Your task to perform on an android device: turn notification dots on Image 0: 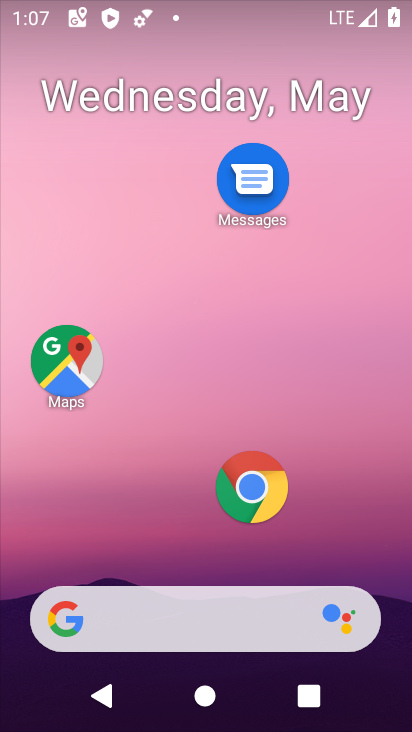
Step 0: press home button
Your task to perform on an android device: turn notification dots on Image 1: 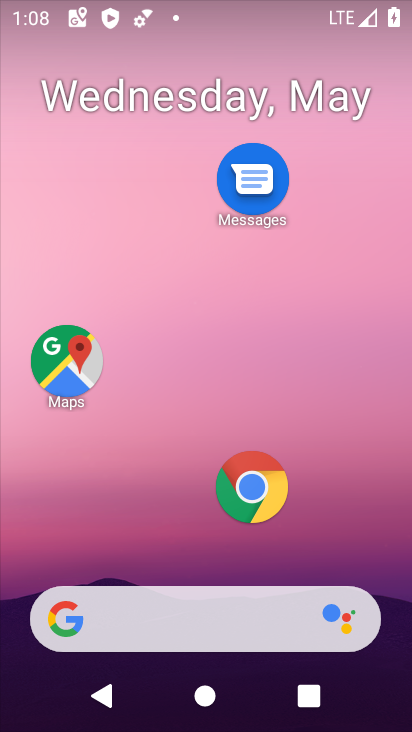
Step 1: drag from (156, 551) to (248, 12)
Your task to perform on an android device: turn notification dots on Image 2: 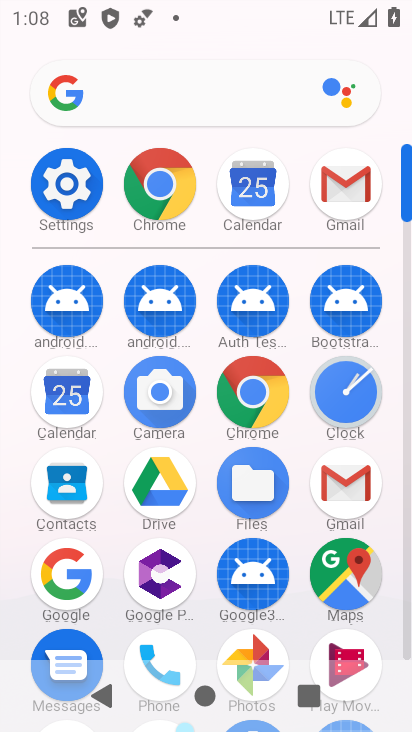
Step 2: click (85, 202)
Your task to perform on an android device: turn notification dots on Image 3: 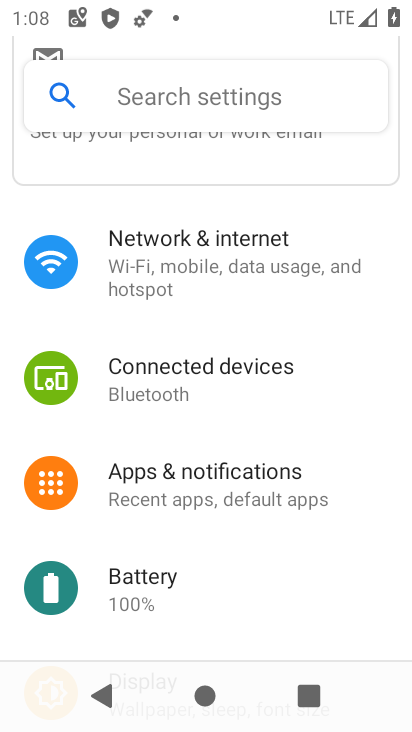
Step 3: click (194, 509)
Your task to perform on an android device: turn notification dots on Image 4: 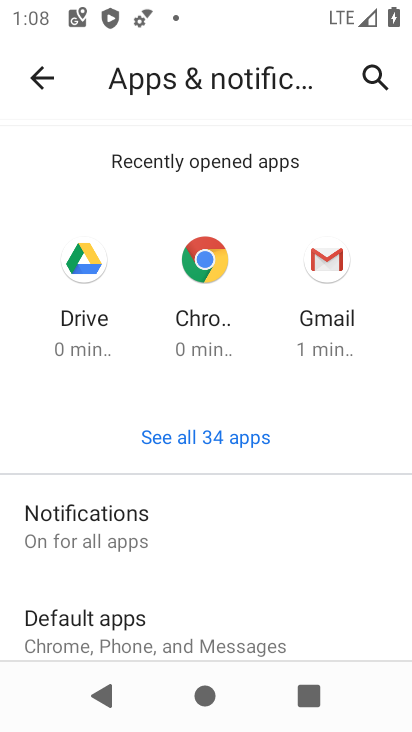
Step 4: click (150, 537)
Your task to perform on an android device: turn notification dots on Image 5: 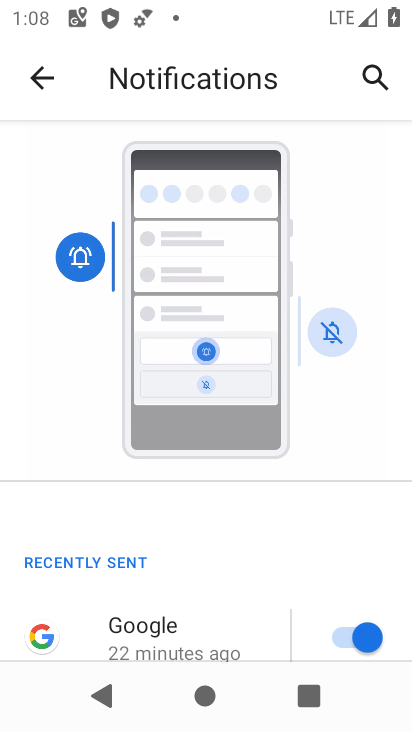
Step 5: drag from (148, 570) to (266, 163)
Your task to perform on an android device: turn notification dots on Image 6: 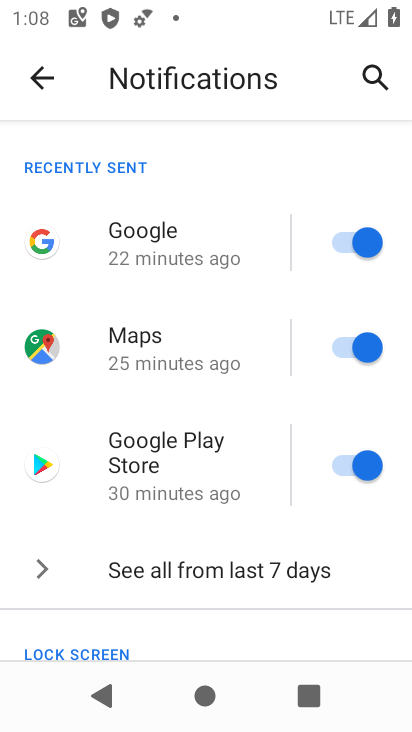
Step 6: drag from (195, 494) to (294, 136)
Your task to perform on an android device: turn notification dots on Image 7: 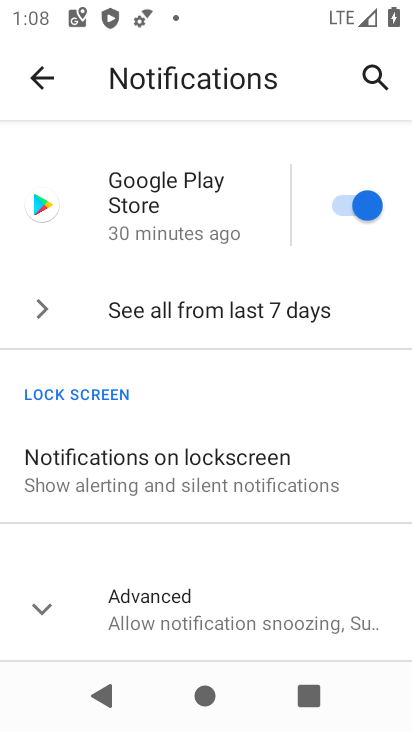
Step 7: click (174, 604)
Your task to perform on an android device: turn notification dots on Image 8: 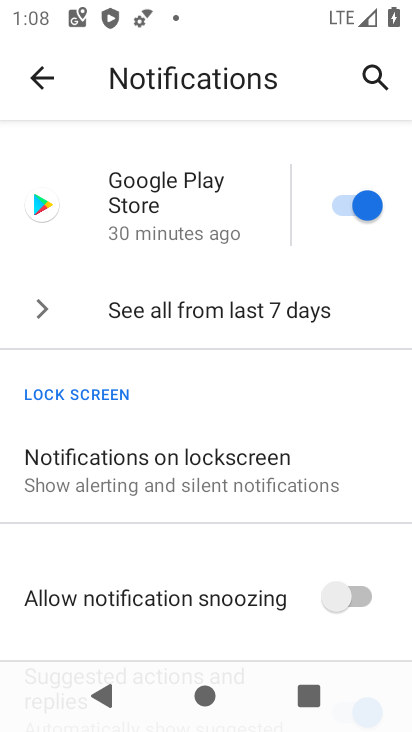
Step 8: task complete